Your task to perform on an android device: turn on notifications settings in the gmail app Image 0: 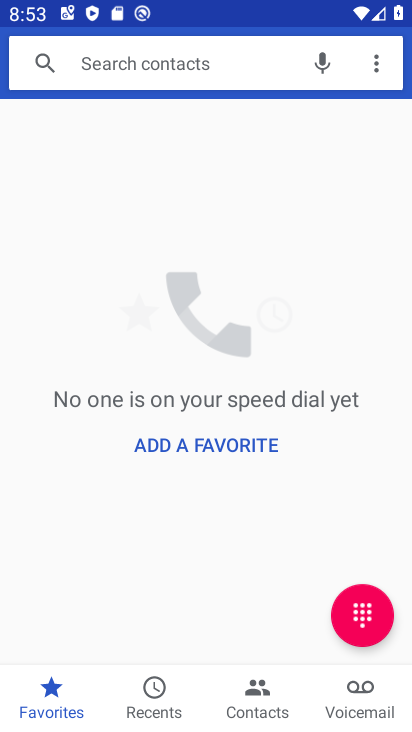
Step 0: press home button
Your task to perform on an android device: turn on notifications settings in the gmail app Image 1: 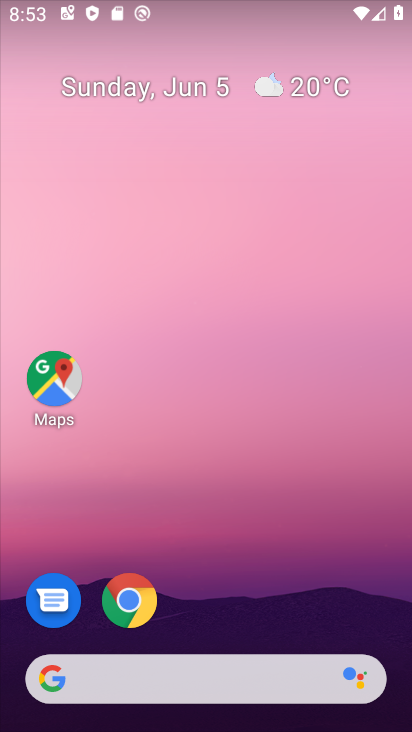
Step 1: drag from (238, 555) to (257, 1)
Your task to perform on an android device: turn on notifications settings in the gmail app Image 2: 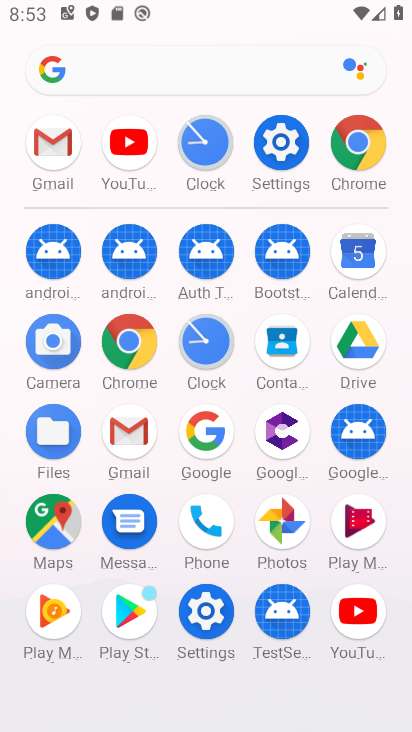
Step 2: click (54, 138)
Your task to perform on an android device: turn on notifications settings in the gmail app Image 3: 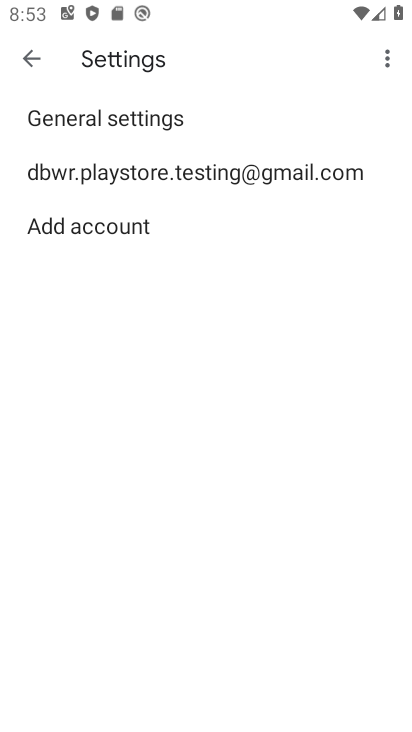
Step 3: click (254, 163)
Your task to perform on an android device: turn on notifications settings in the gmail app Image 4: 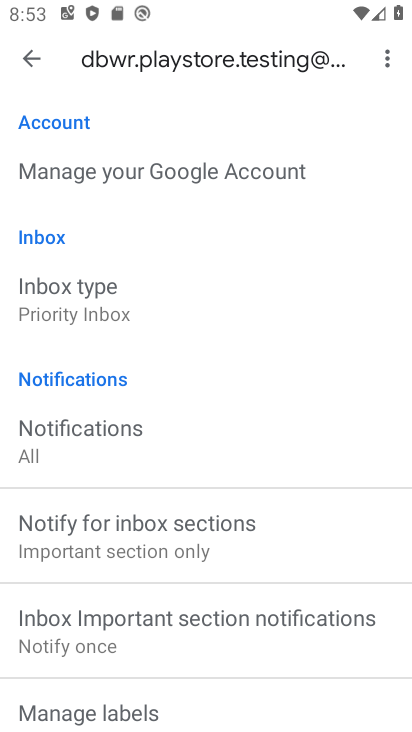
Step 4: drag from (212, 653) to (229, 314)
Your task to perform on an android device: turn on notifications settings in the gmail app Image 5: 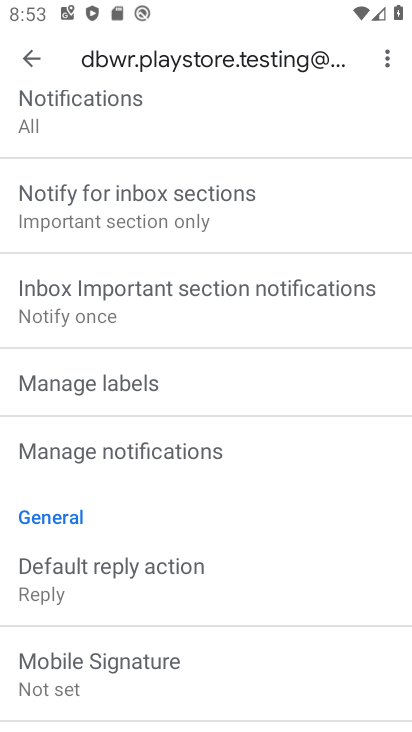
Step 5: click (218, 452)
Your task to perform on an android device: turn on notifications settings in the gmail app Image 6: 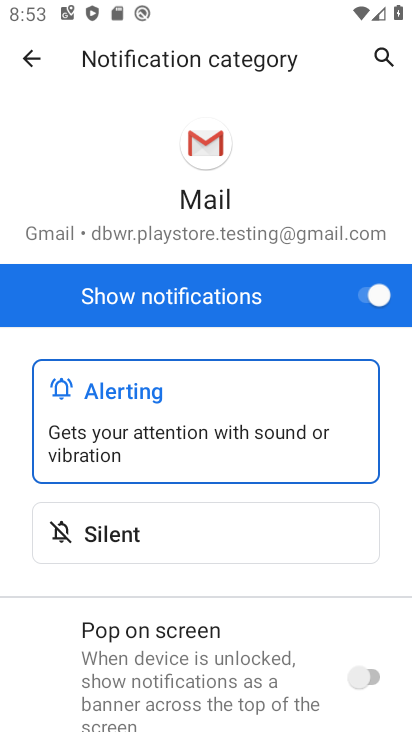
Step 6: task complete